Your task to perform on an android device: change notifications settings Image 0: 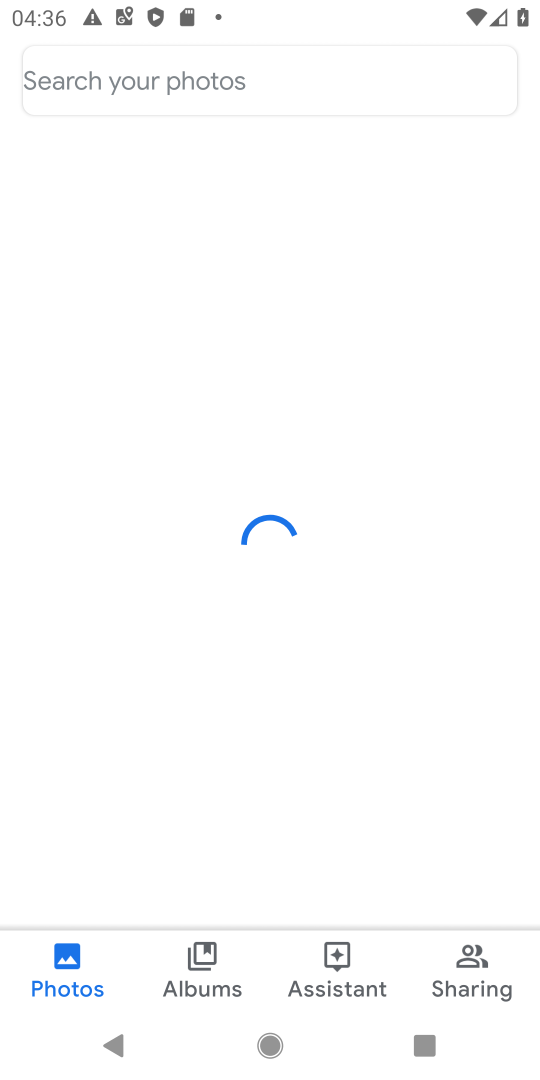
Step 0: press home button
Your task to perform on an android device: change notifications settings Image 1: 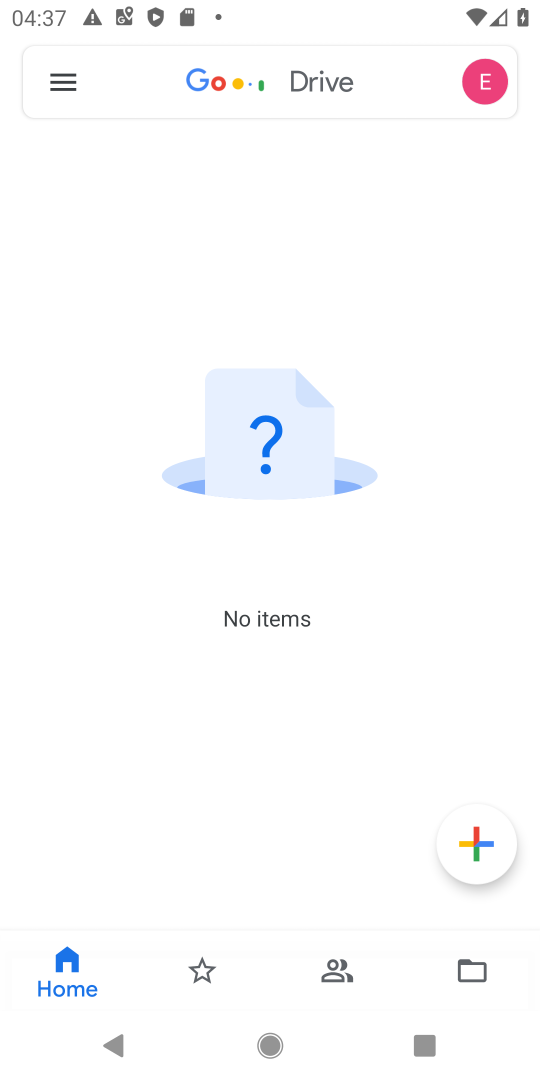
Step 1: press home button
Your task to perform on an android device: change notifications settings Image 2: 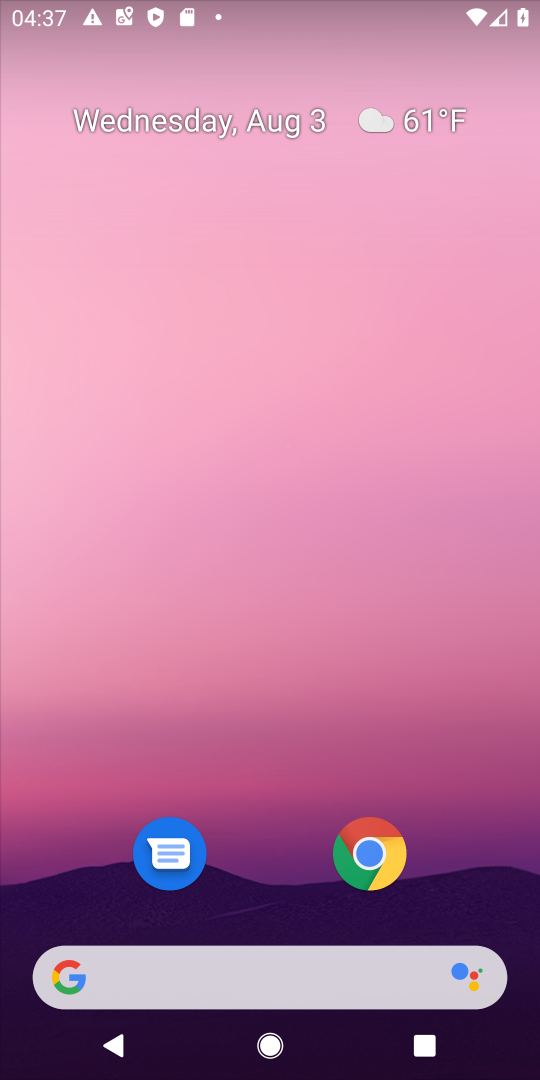
Step 2: press home button
Your task to perform on an android device: change notifications settings Image 3: 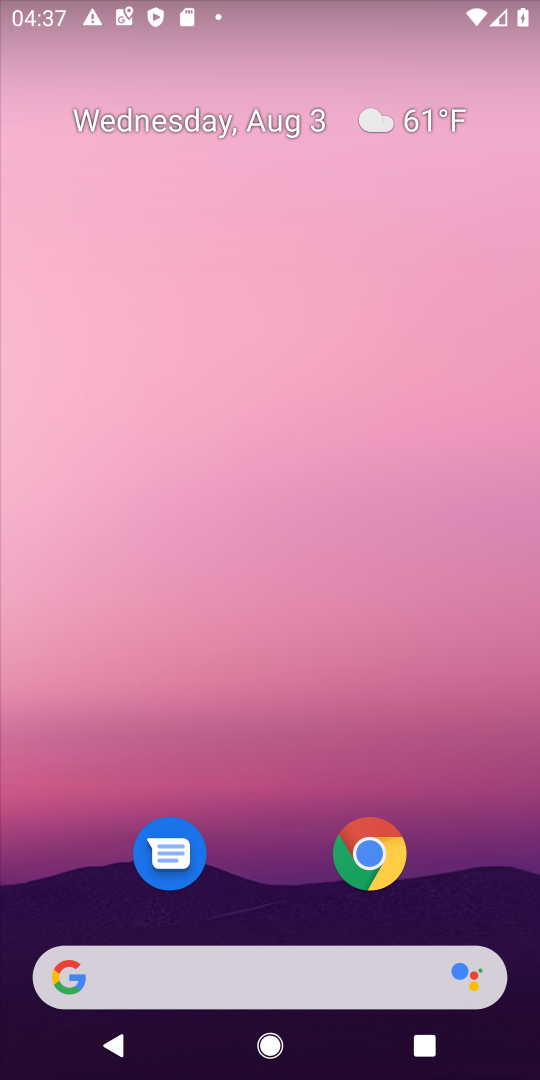
Step 3: drag from (287, 777) to (381, 201)
Your task to perform on an android device: change notifications settings Image 4: 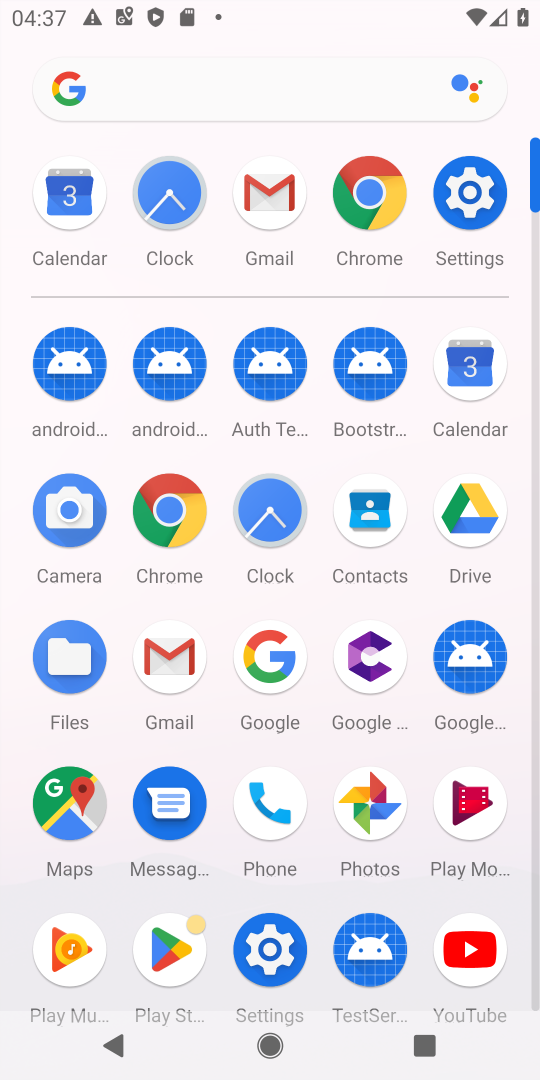
Step 4: click (469, 194)
Your task to perform on an android device: change notifications settings Image 5: 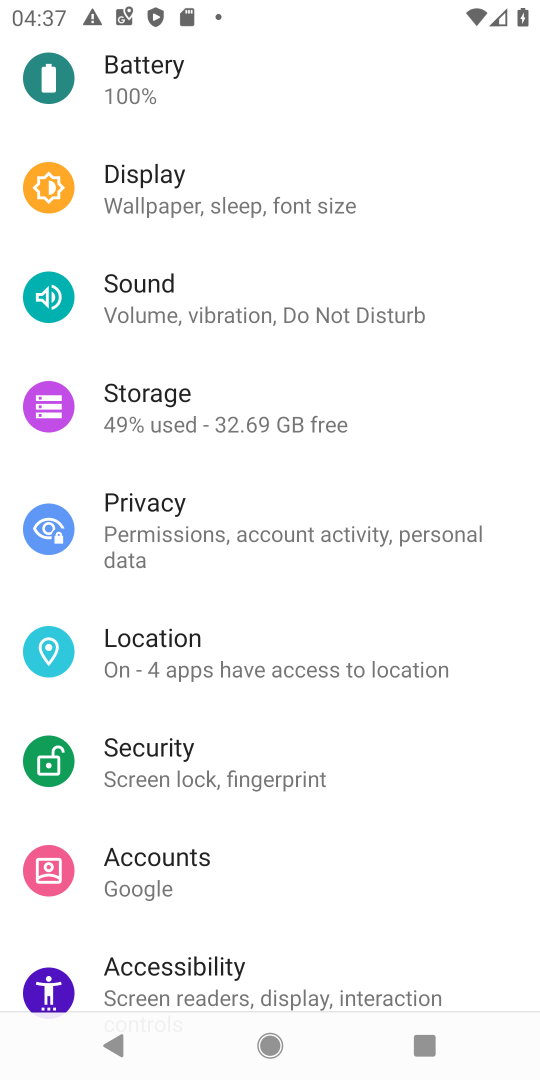
Step 5: drag from (263, 407) to (234, 822)
Your task to perform on an android device: change notifications settings Image 6: 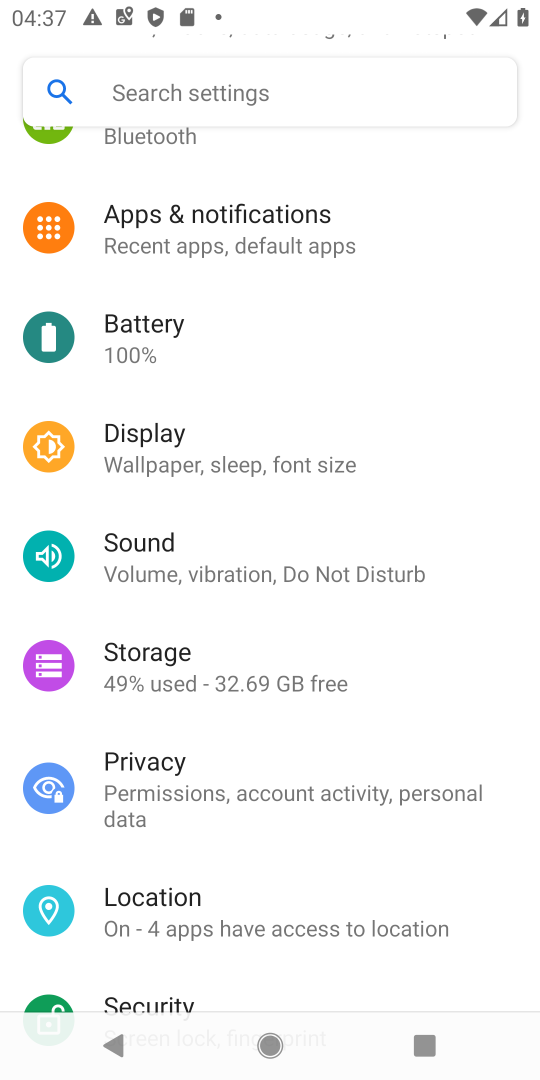
Step 6: click (220, 243)
Your task to perform on an android device: change notifications settings Image 7: 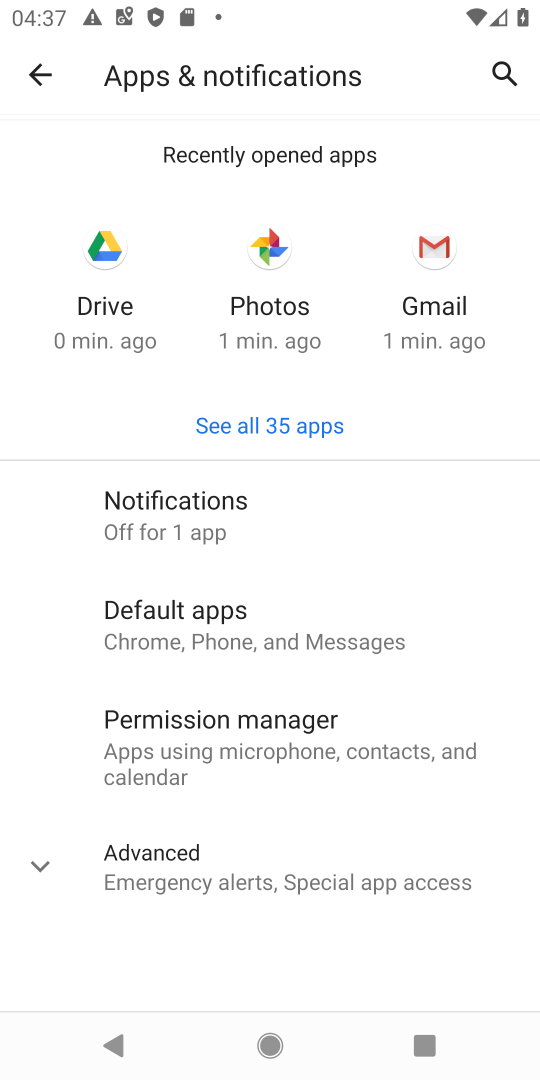
Step 7: click (148, 514)
Your task to perform on an android device: change notifications settings Image 8: 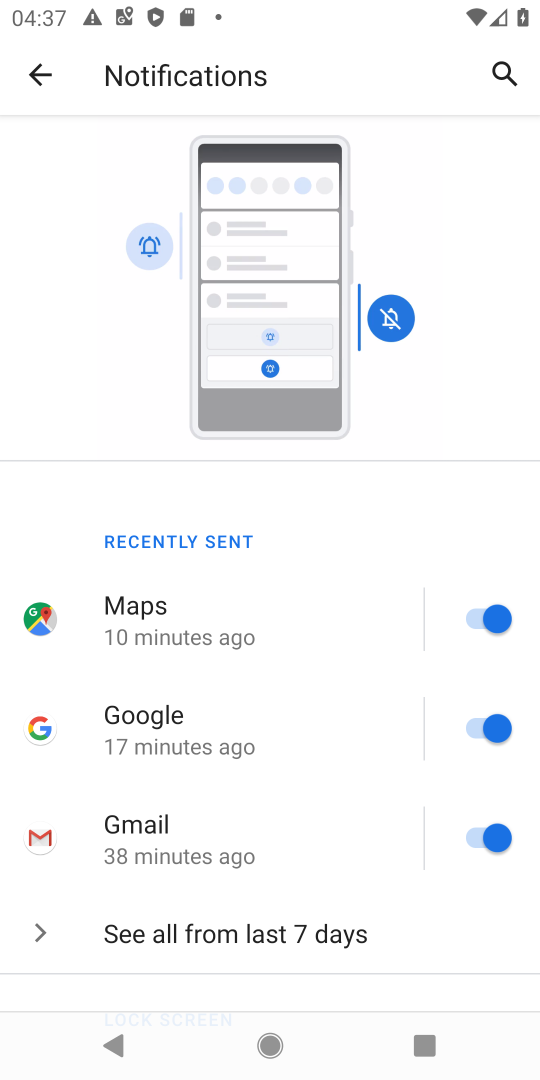
Step 8: drag from (232, 941) to (240, 361)
Your task to perform on an android device: change notifications settings Image 9: 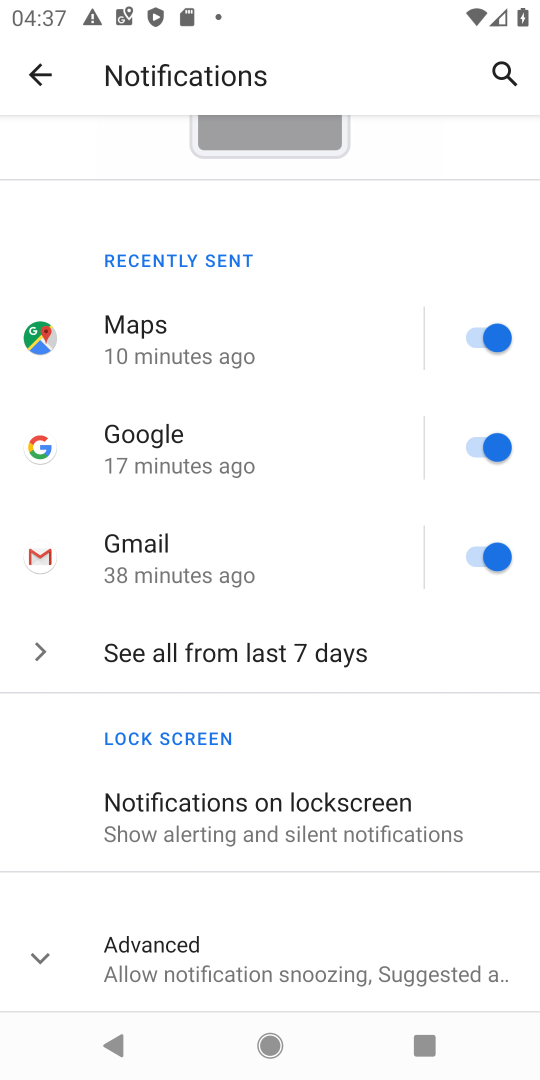
Step 9: click (258, 984)
Your task to perform on an android device: change notifications settings Image 10: 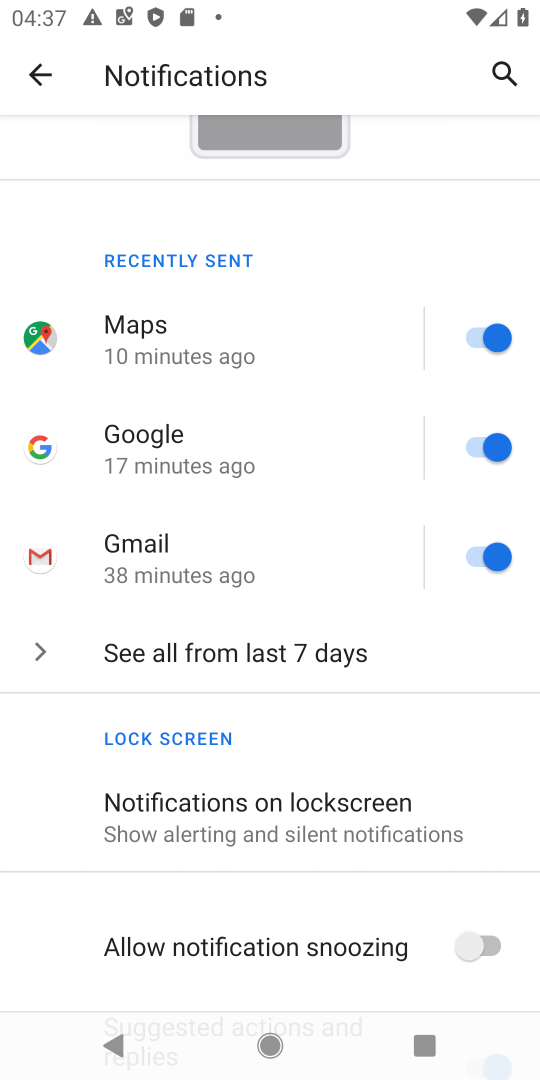
Step 10: click (482, 950)
Your task to perform on an android device: change notifications settings Image 11: 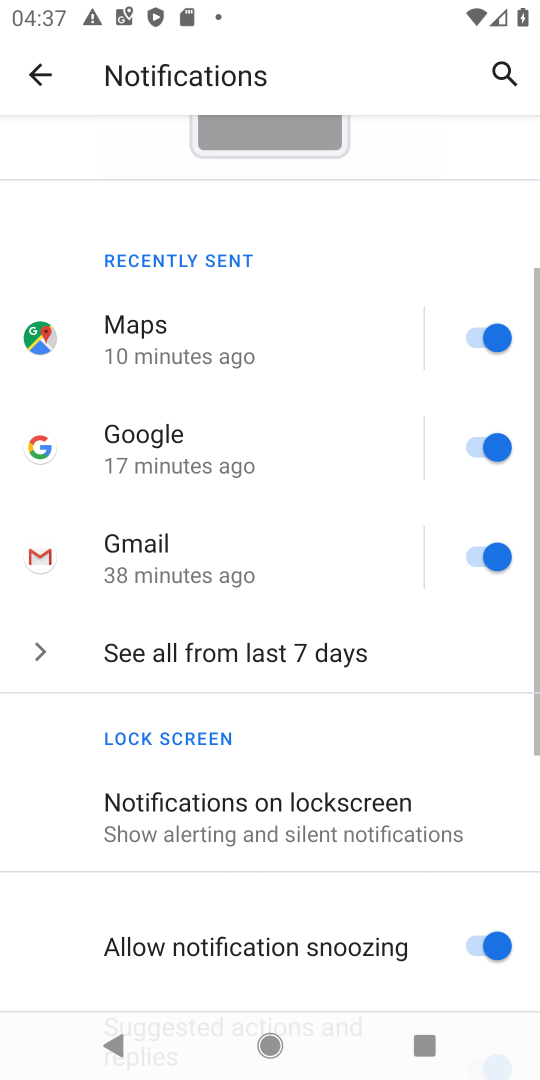
Step 11: task complete